Your task to perform on an android device: Install the Yelp app Image 0: 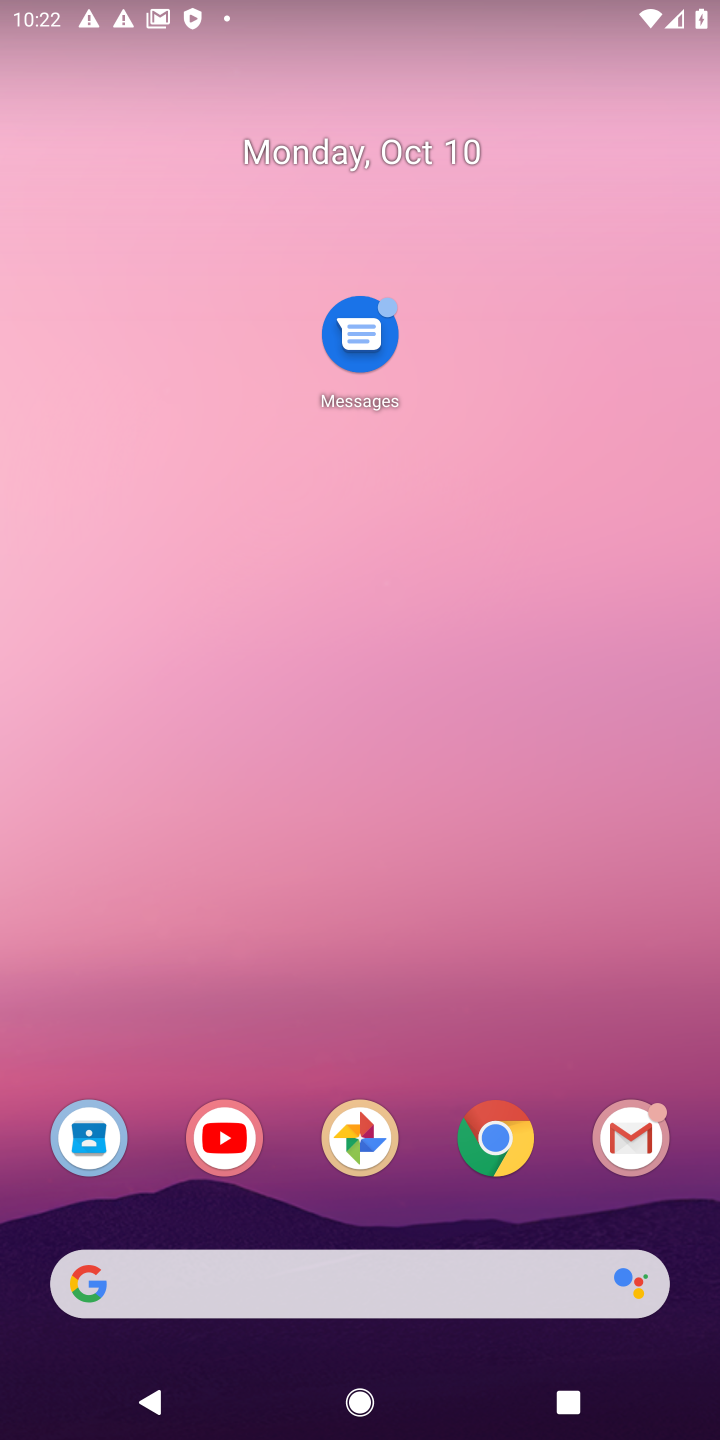
Step 0: drag from (428, 1128) to (431, 155)
Your task to perform on an android device: Install the Yelp app Image 1: 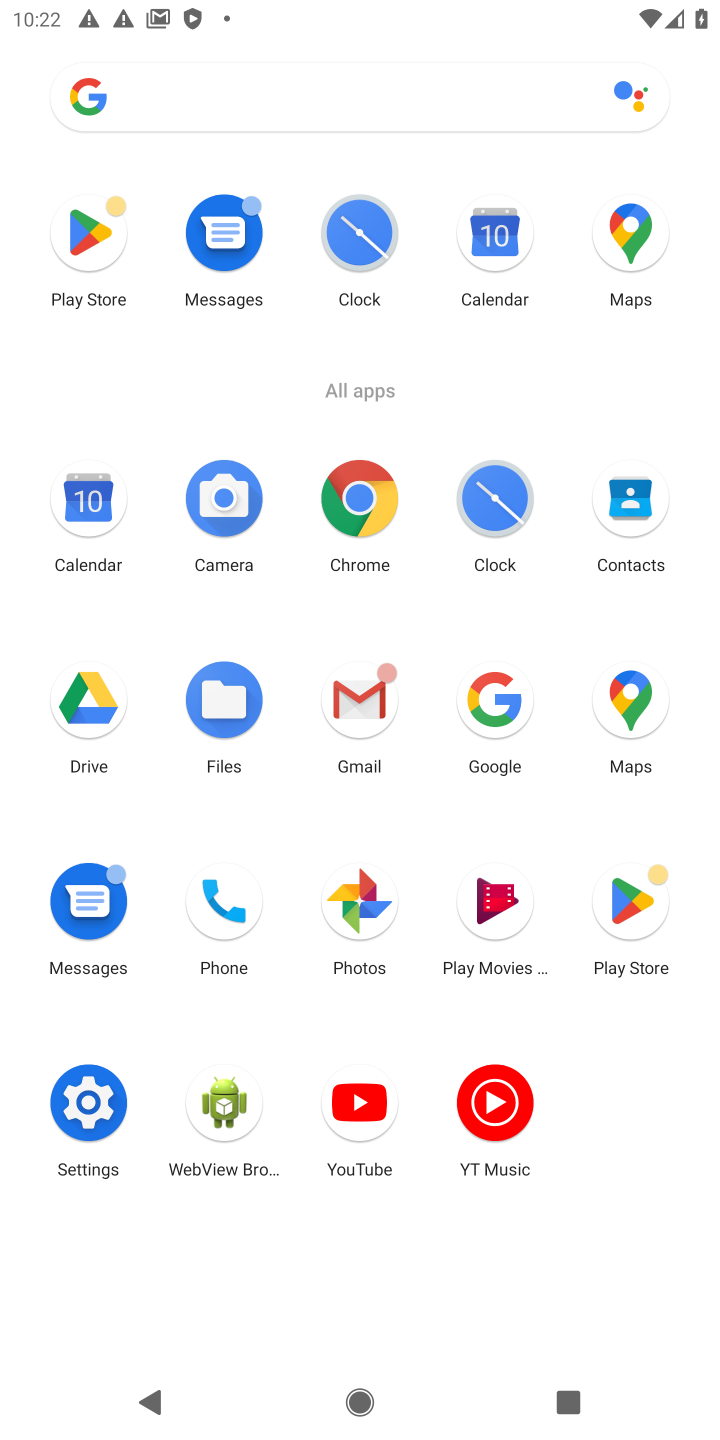
Step 1: click (94, 247)
Your task to perform on an android device: Install the Yelp app Image 2: 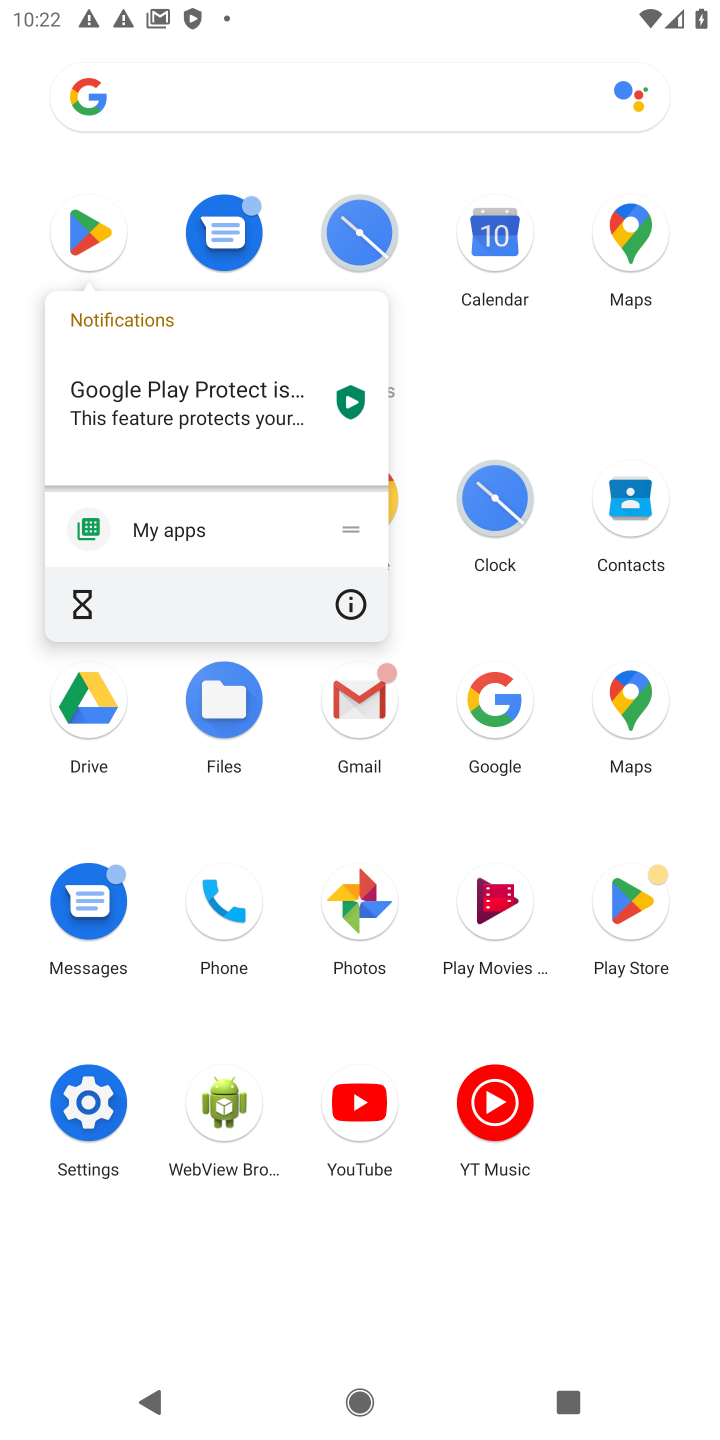
Step 2: click (627, 903)
Your task to perform on an android device: Install the Yelp app Image 3: 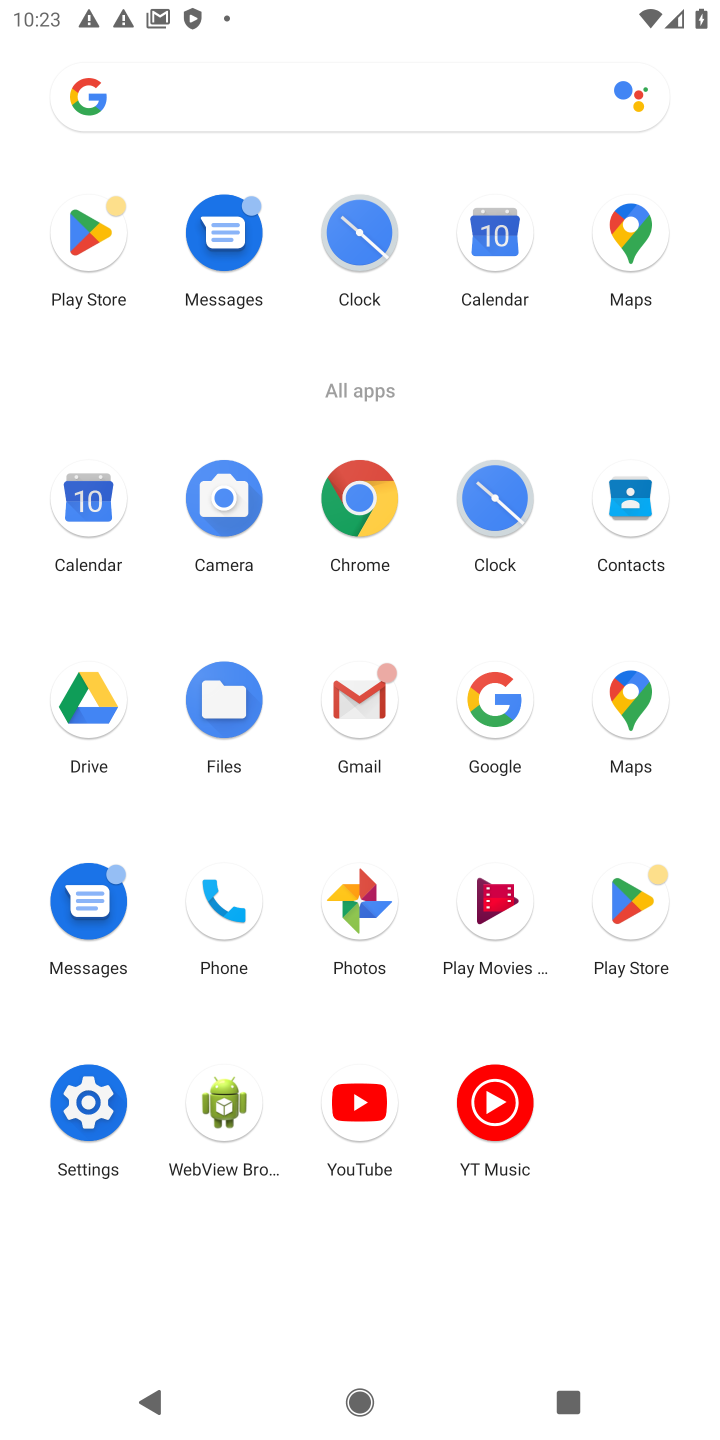
Step 3: click (621, 910)
Your task to perform on an android device: Install the Yelp app Image 4: 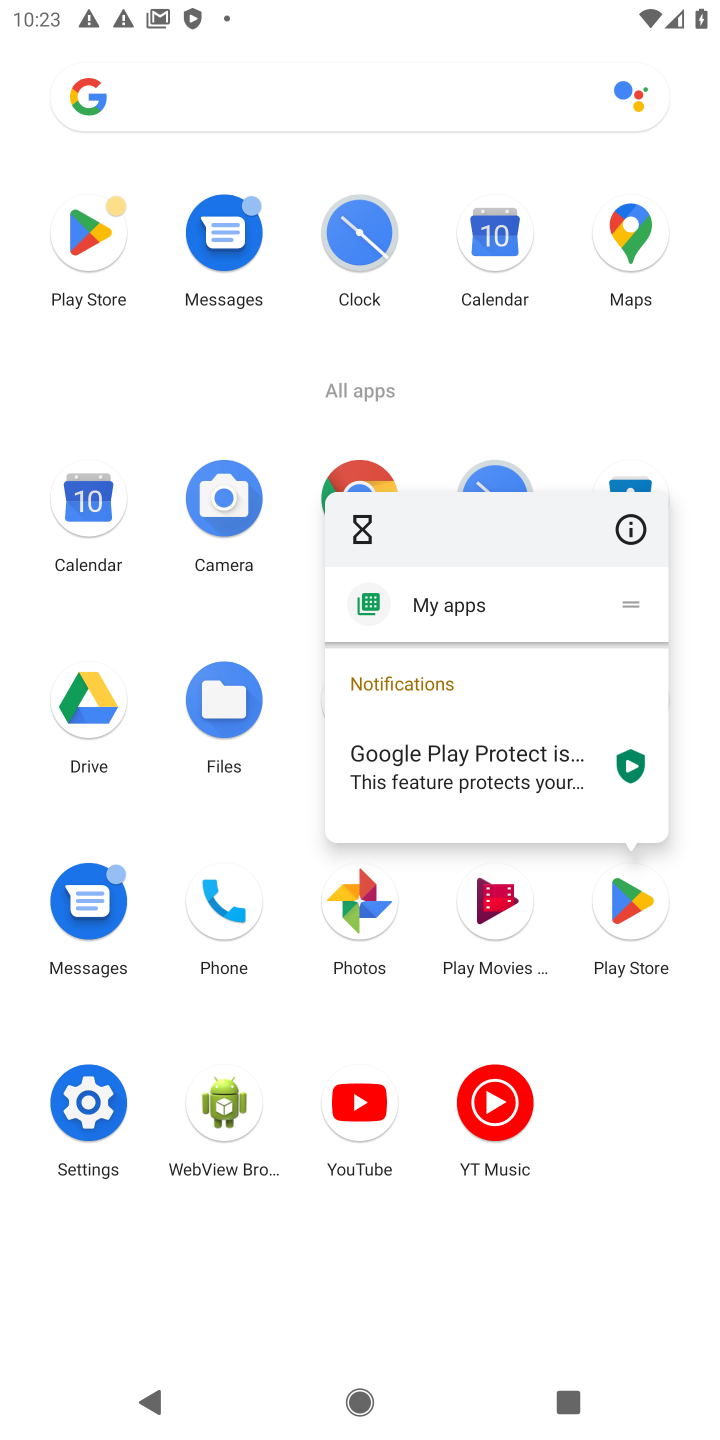
Step 4: click (619, 899)
Your task to perform on an android device: Install the Yelp app Image 5: 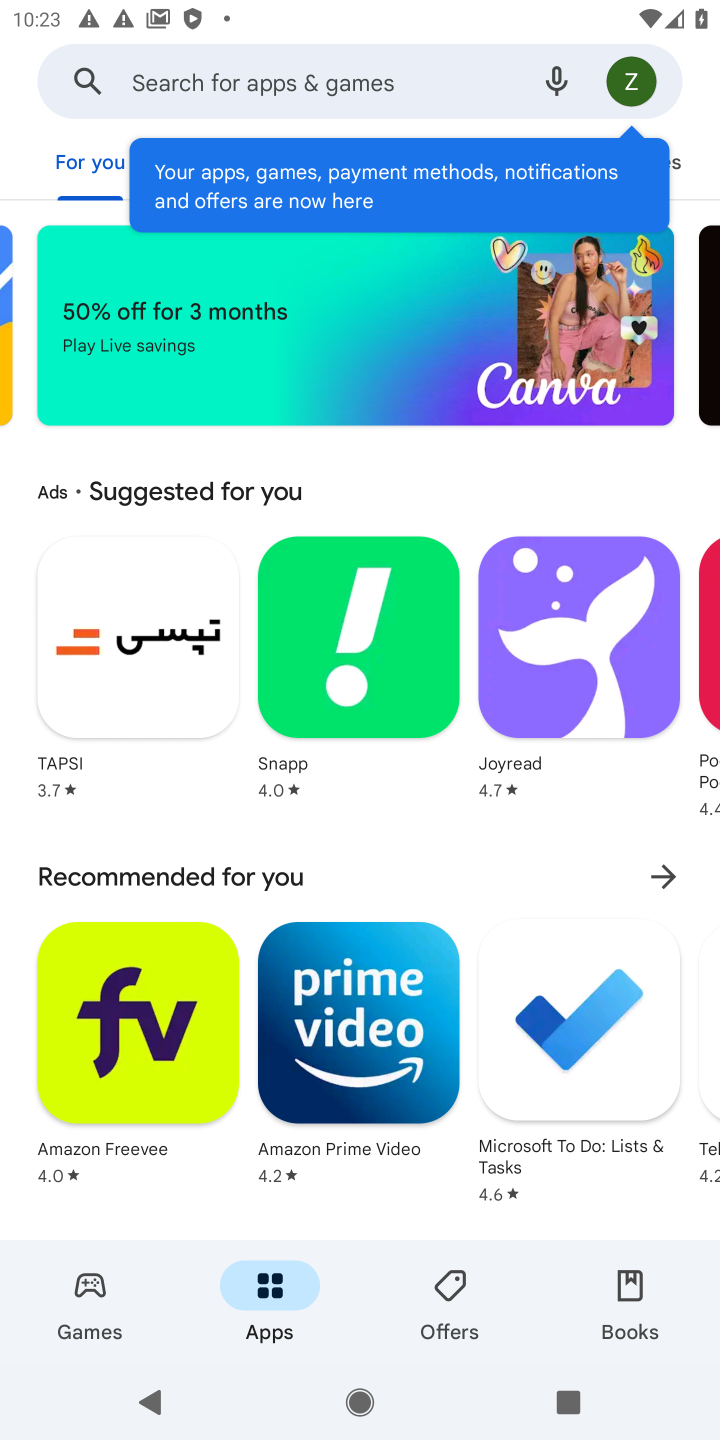
Step 5: click (404, 93)
Your task to perform on an android device: Install the Yelp app Image 6: 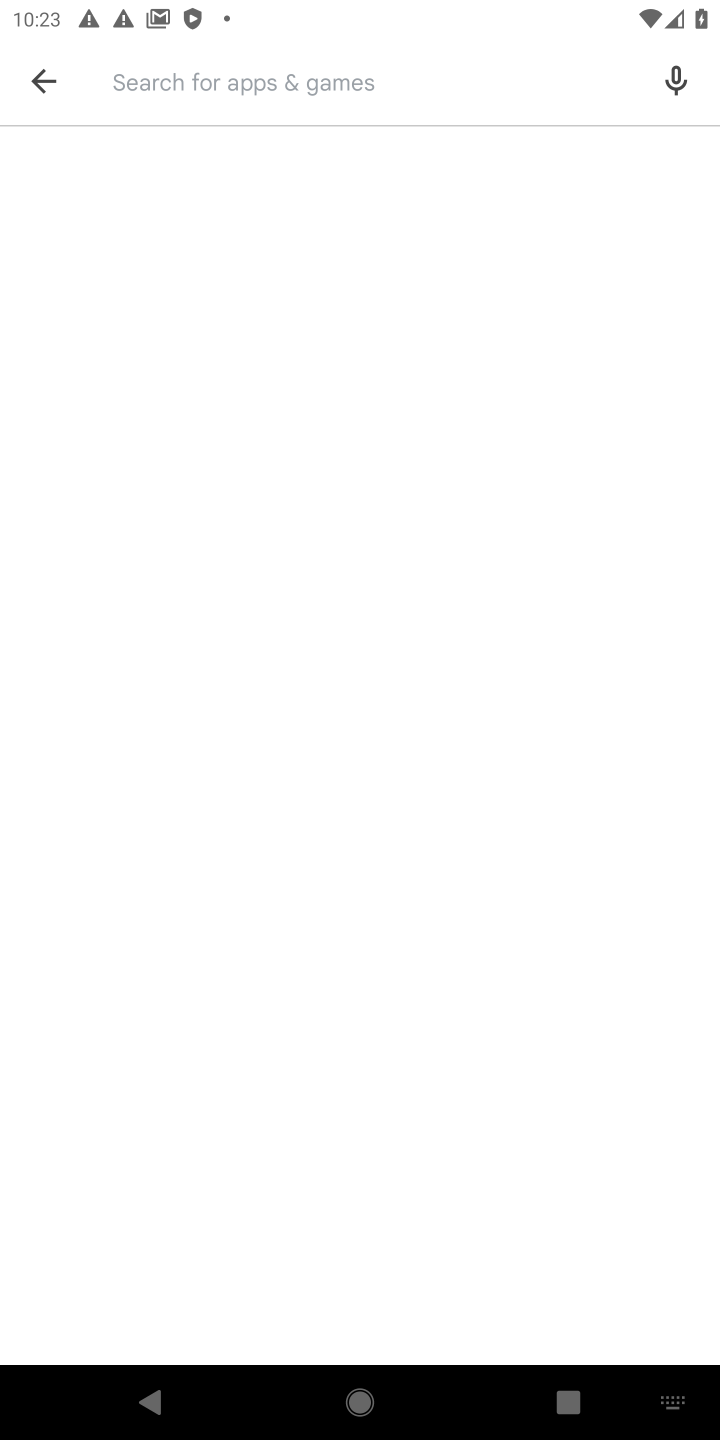
Step 6: type "yelp"
Your task to perform on an android device: Install the Yelp app Image 7: 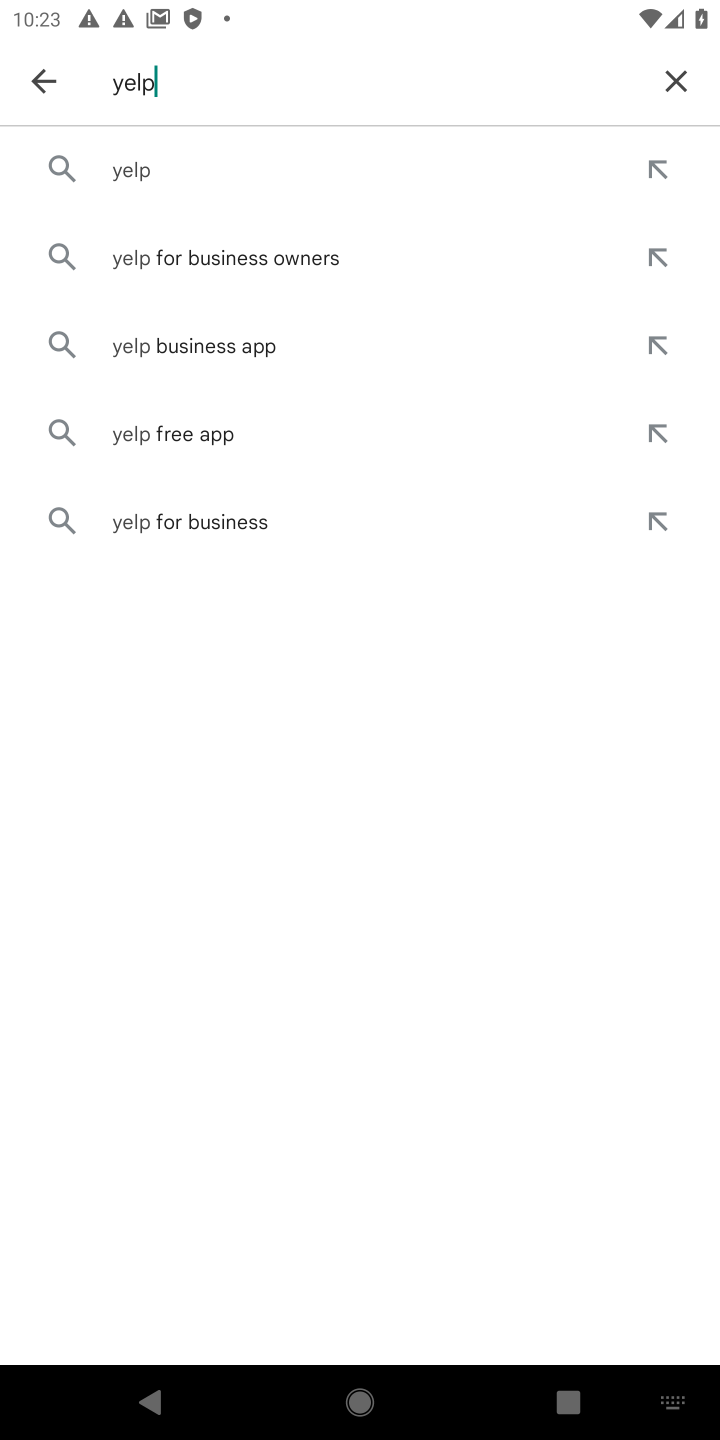
Step 7: press enter
Your task to perform on an android device: Install the Yelp app Image 8: 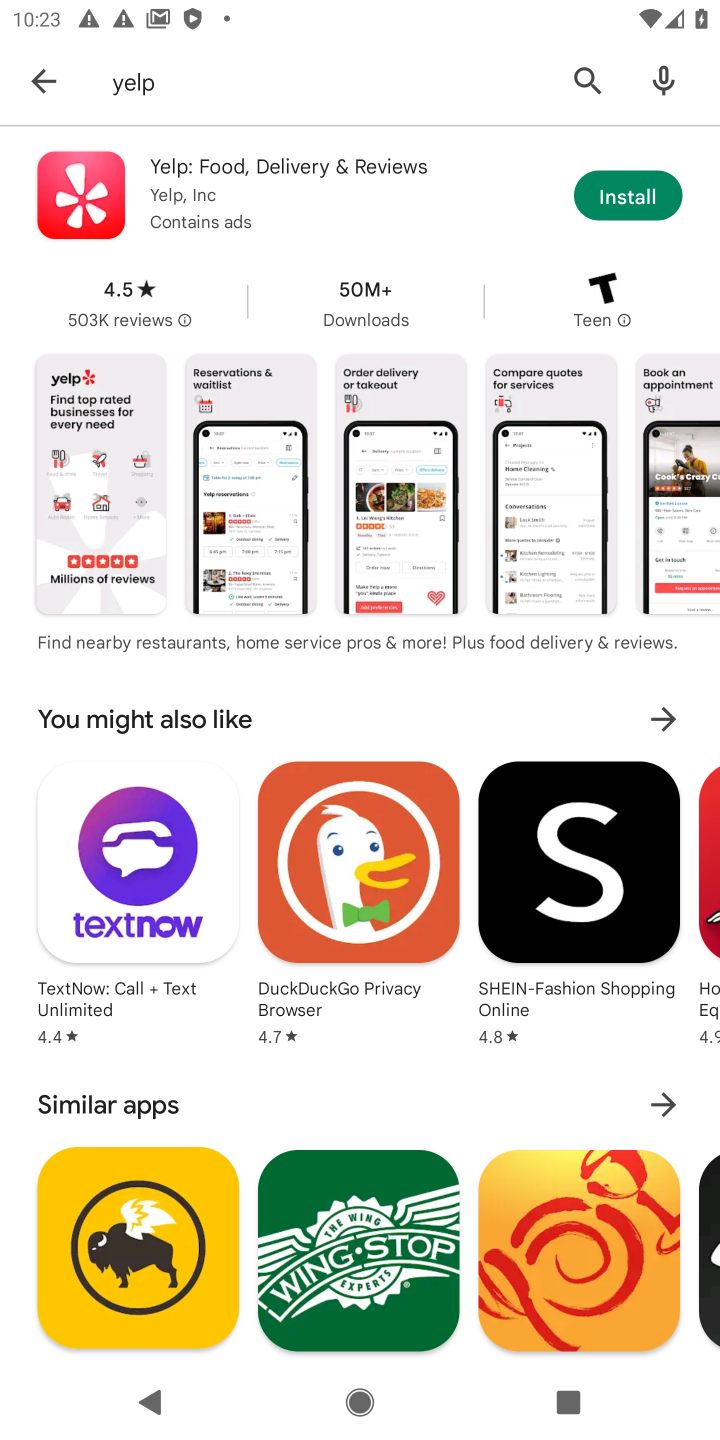
Step 8: click (612, 188)
Your task to perform on an android device: Install the Yelp app Image 9: 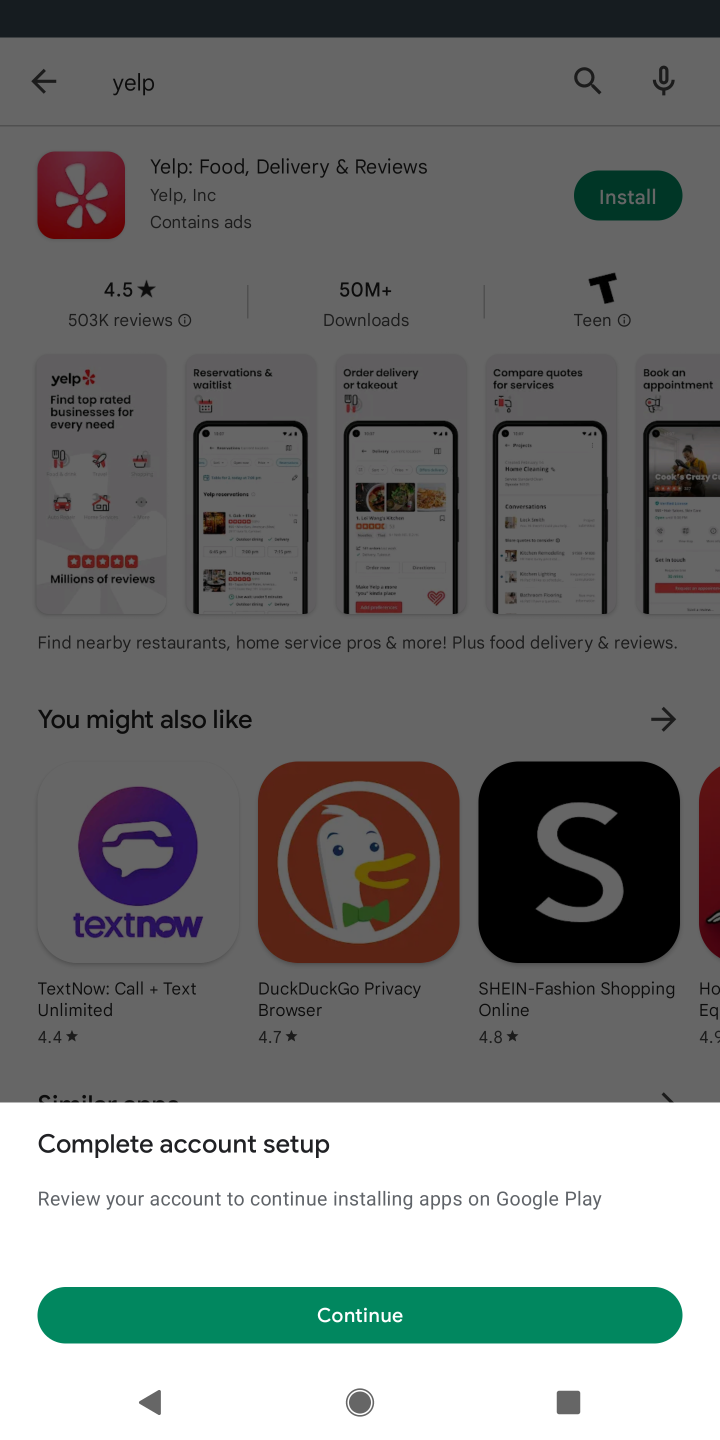
Step 9: click (419, 1312)
Your task to perform on an android device: Install the Yelp app Image 10: 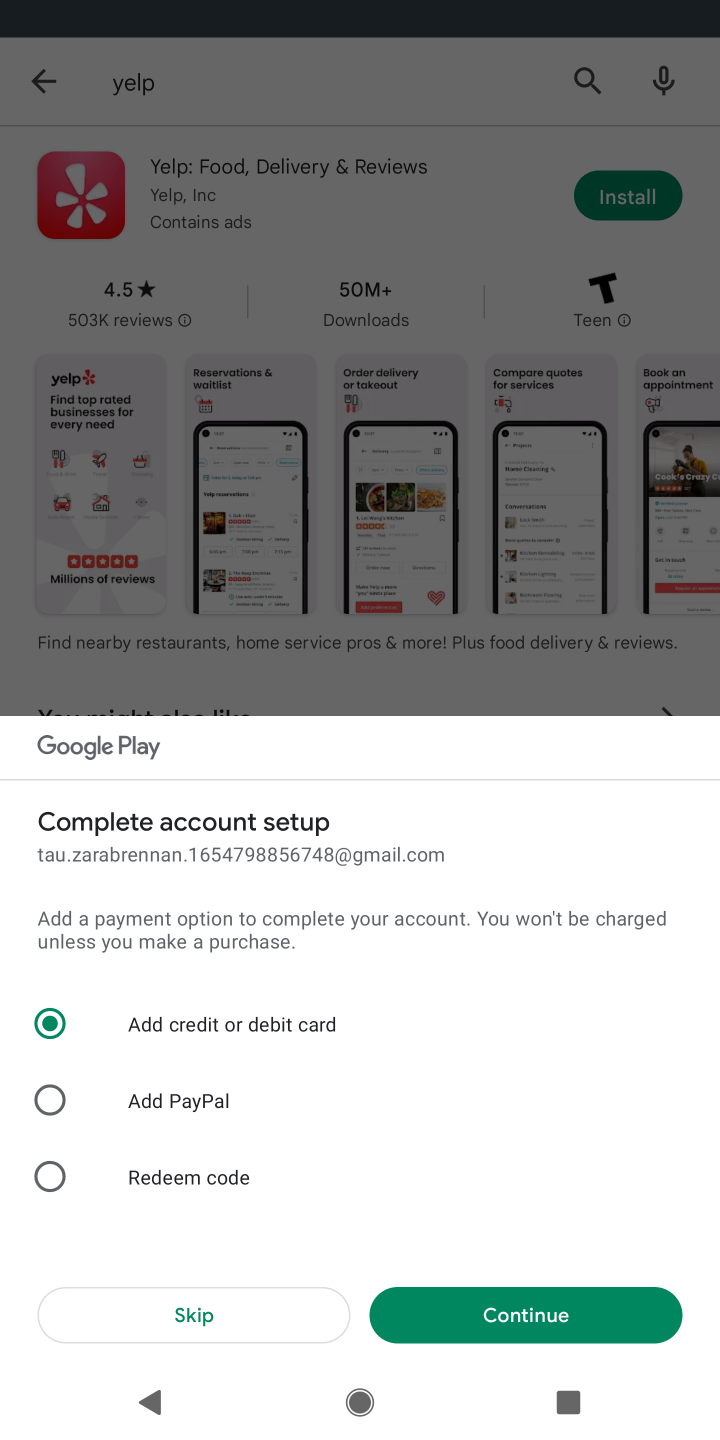
Step 10: click (248, 1335)
Your task to perform on an android device: Install the Yelp app Image 11: 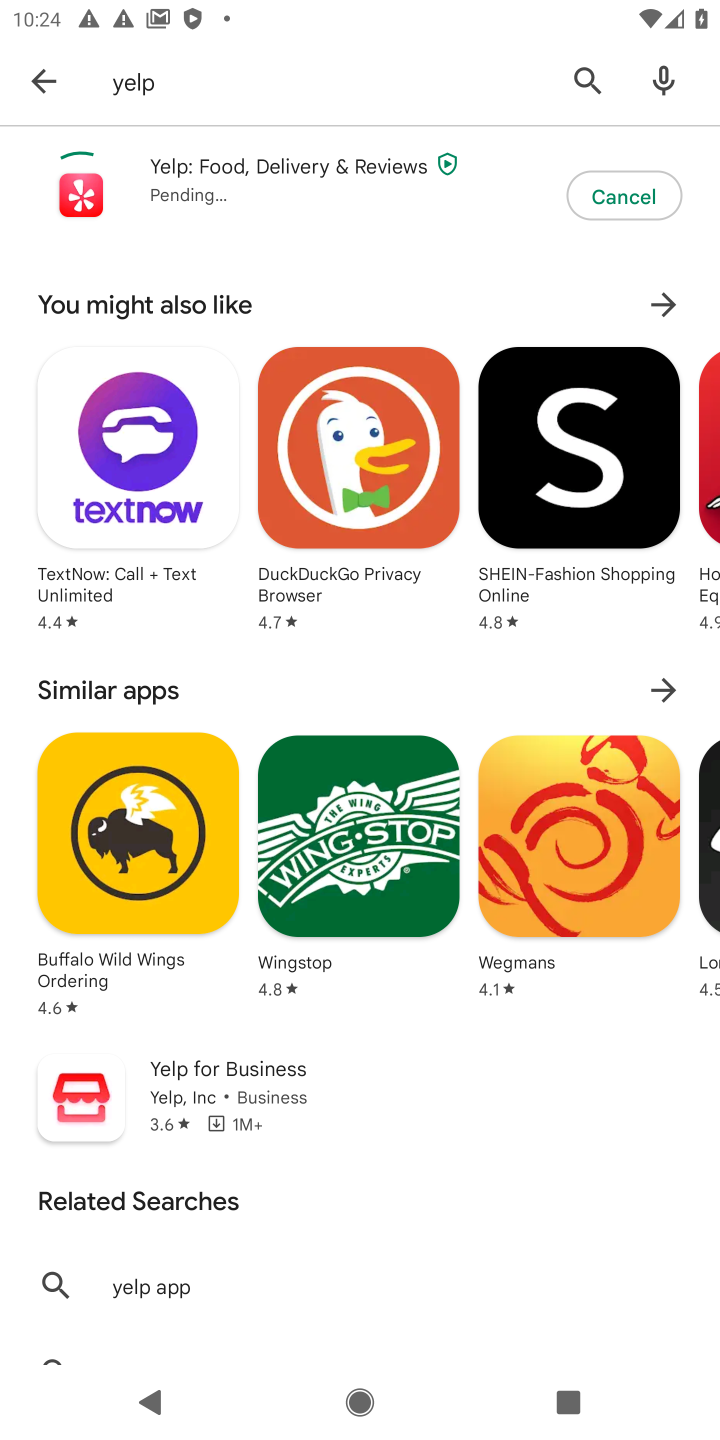
Step 11: task complete